Your task to perform on an android device: turn on javascript in the chrome app Image 0: 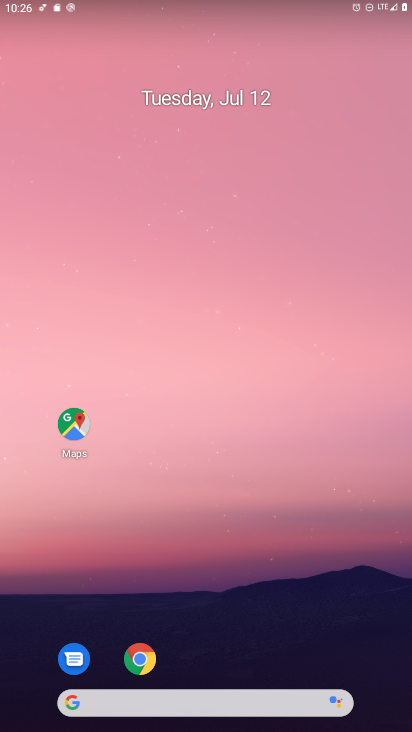
Step 0: click (151, 670)
Your task to perform on an android device: turn on javascript in the chrome app Image 1: 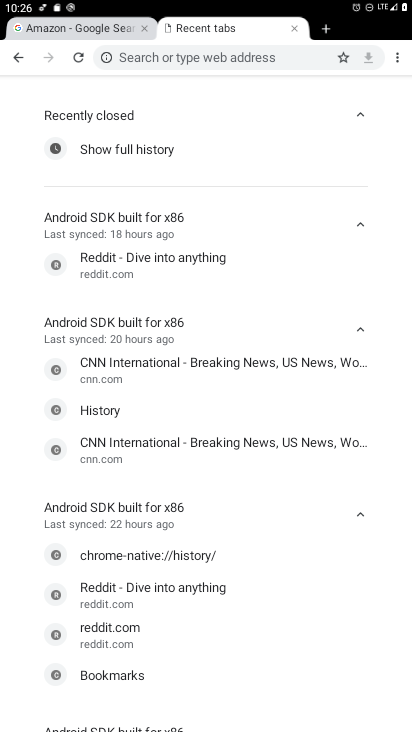
Step 1: drag from (397, 56) to (297, 269)
Your task to perform on an android device: turn on javascript in the chrome app Image 2: 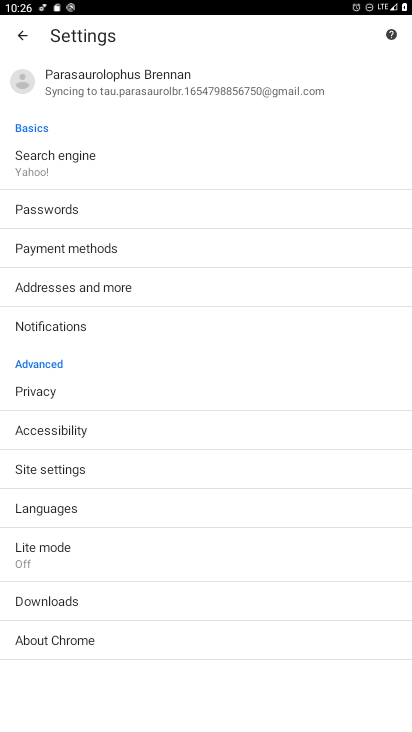
Step 2: click (88, 471)
Your task to perform on an android device: turn on javascript in the chrome app Image 3: 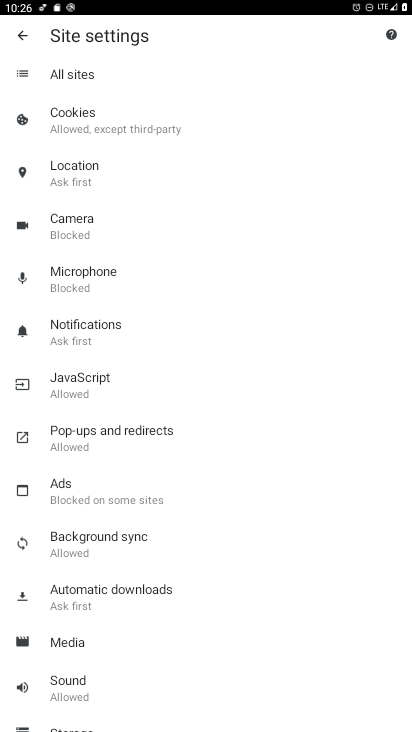
Step 3: click (108, 376)
Your task to perform on an android device: turn on javascript in the chrome app Image 4: 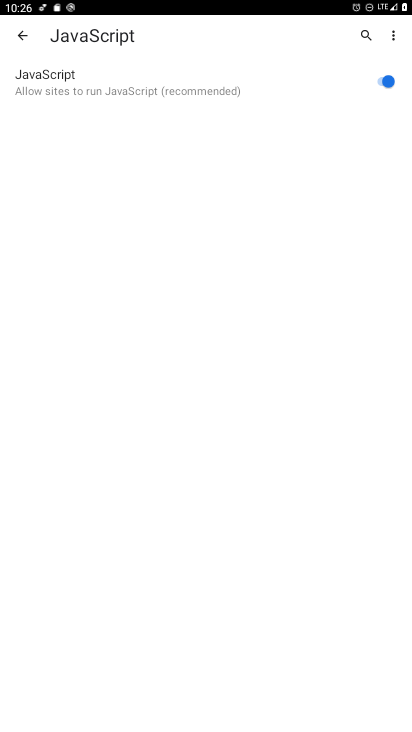
Step 4: task complete